Your task to perform on an android device: open app "Viber Messenger" (install if not already installed) Image 0: 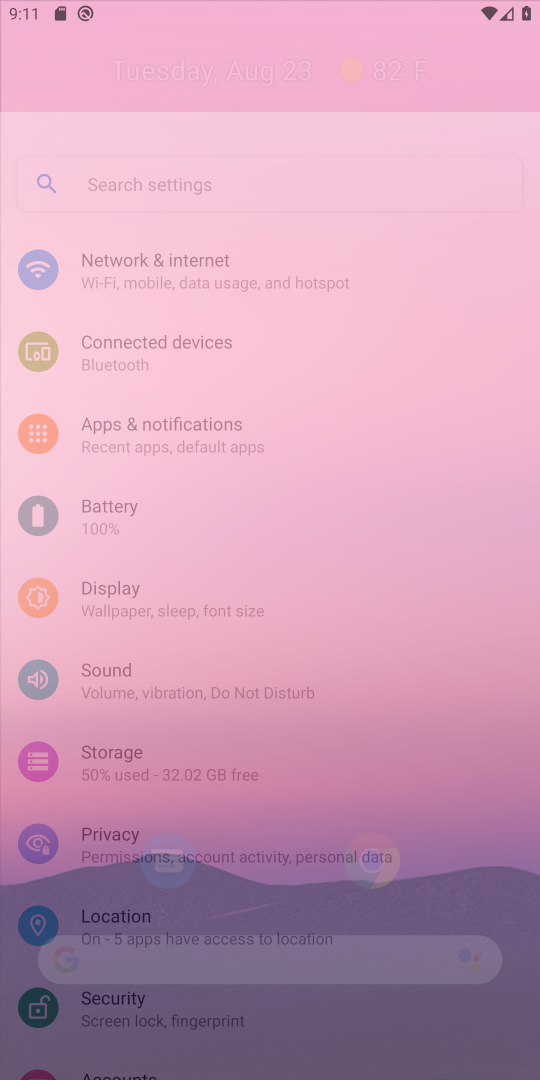
Step 0: click (35, 54)
Your task to perform on an android device: open app "Viber Messenger" (install if not already installed) Image 1: 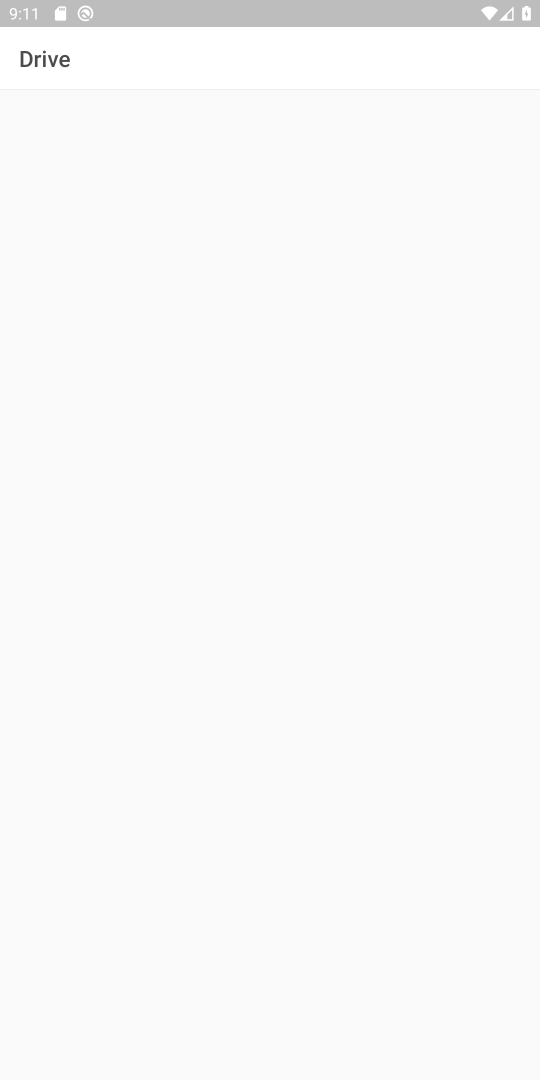
Step 1: press home button
Your task to perform on an android device: open app "Viber Messenger" (install if not already installed) Image 2: 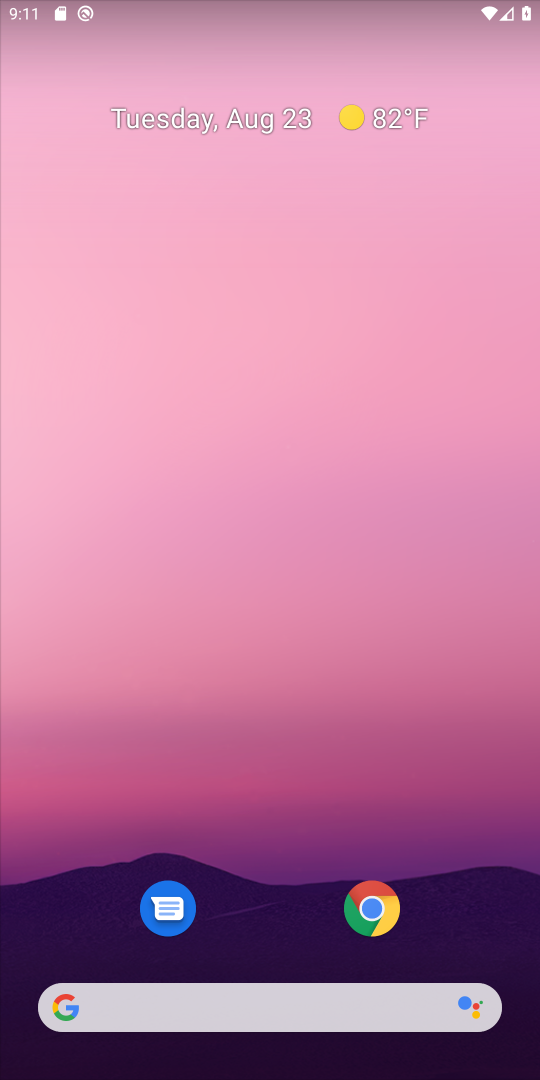
Step 2: drag from (242, 926) to (240, 90)
Your task to perform on an android device: open app "Viber Messenger" (install if not already installed) Image 3: 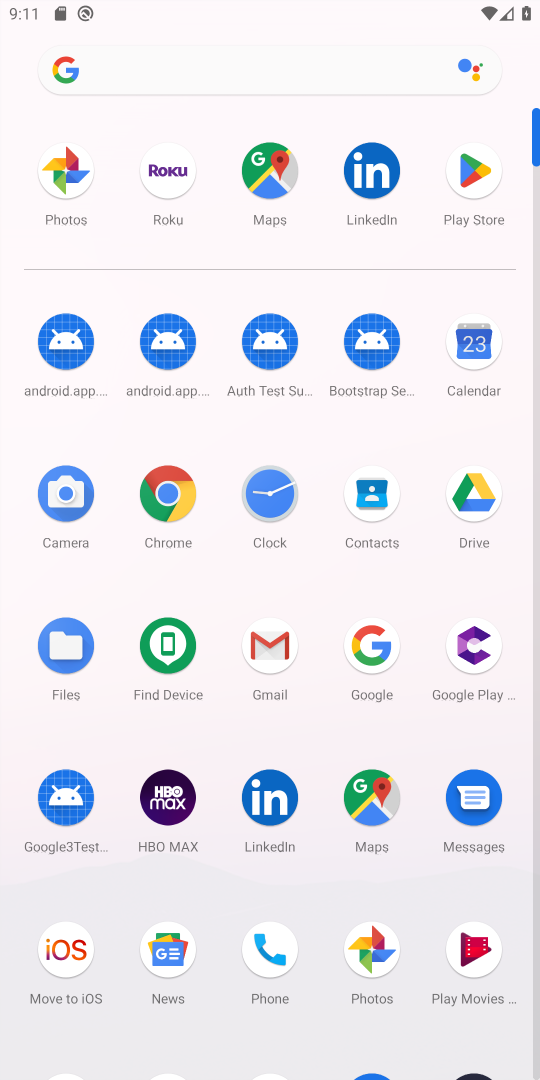
Step 3: click (451, 185)
Your task to perform on an android device: open app "Viber Messenger" (install if not already installed) Image 4: 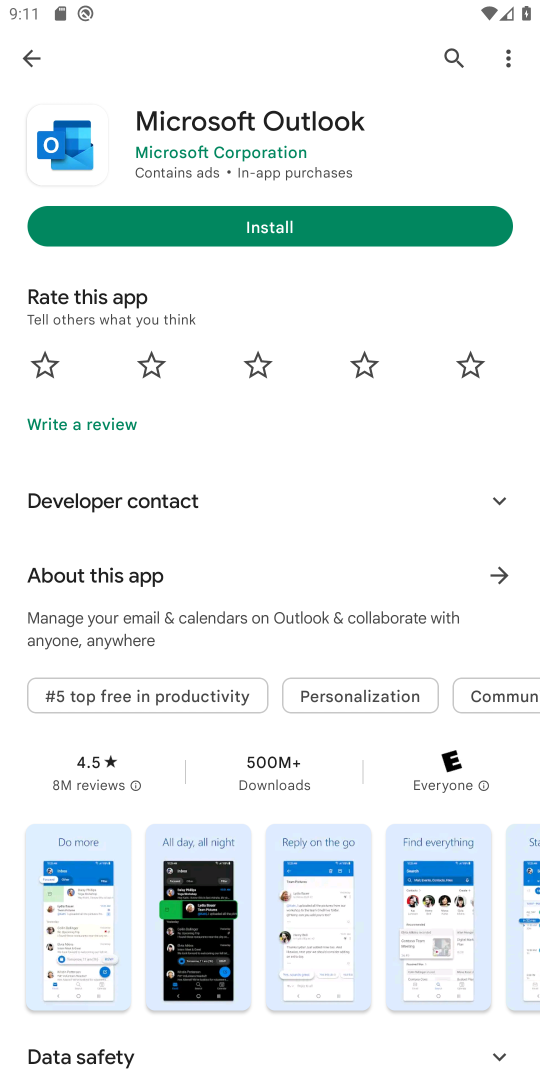
Step 4: click (23, 53)
Your task to perform on an android device: open app "Viber Messenger" (install if not already installed) Image 5: 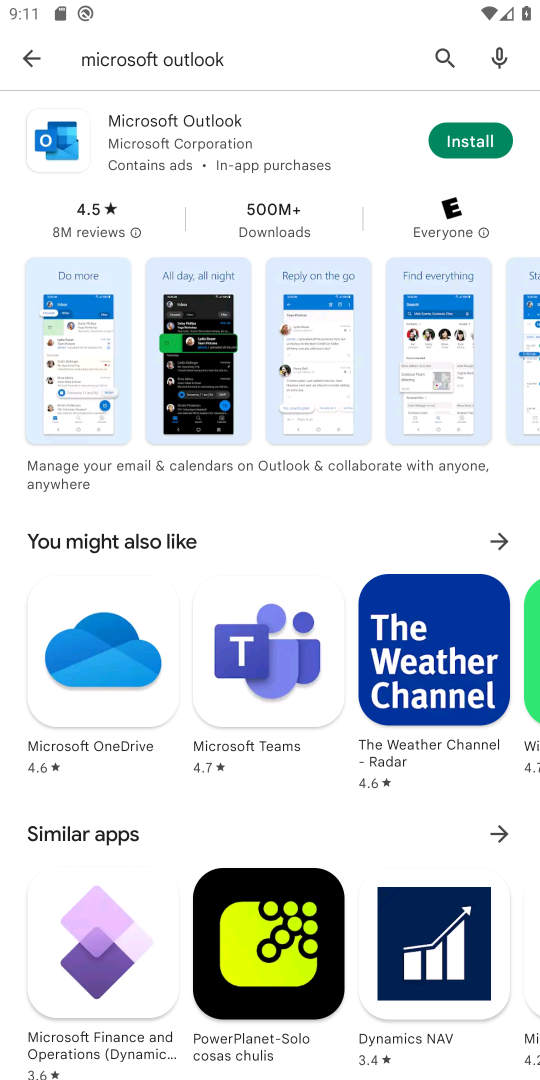
Step 5: click (184, 65)
Your task to perform on an android device: open app "Viber Messenger" (install if not already installed) Image 6: 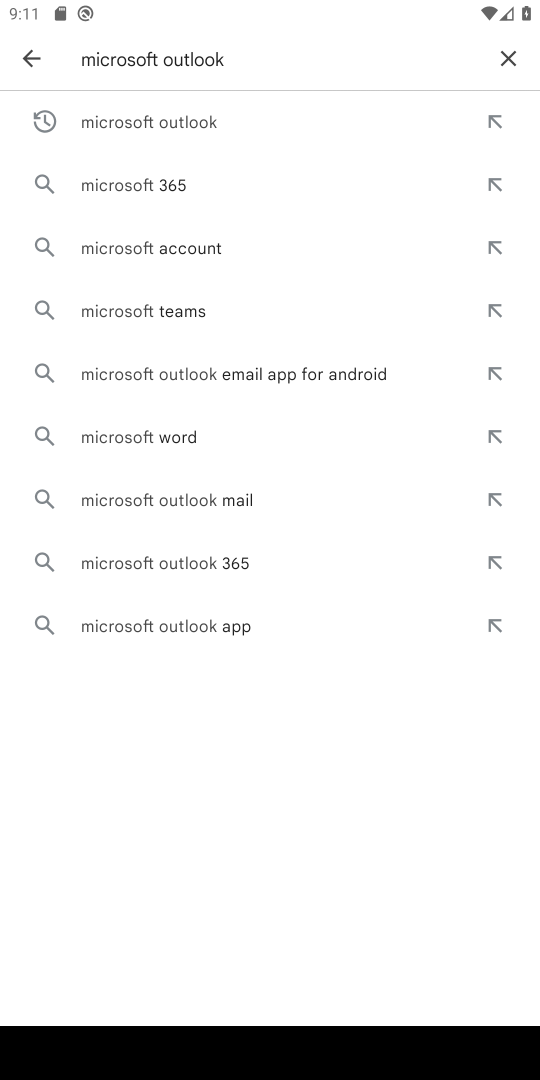
Step 6: click (495, 55)
Your task to perform on an android device: open app "Viber Messenger" (install if not already installed) Image 7: 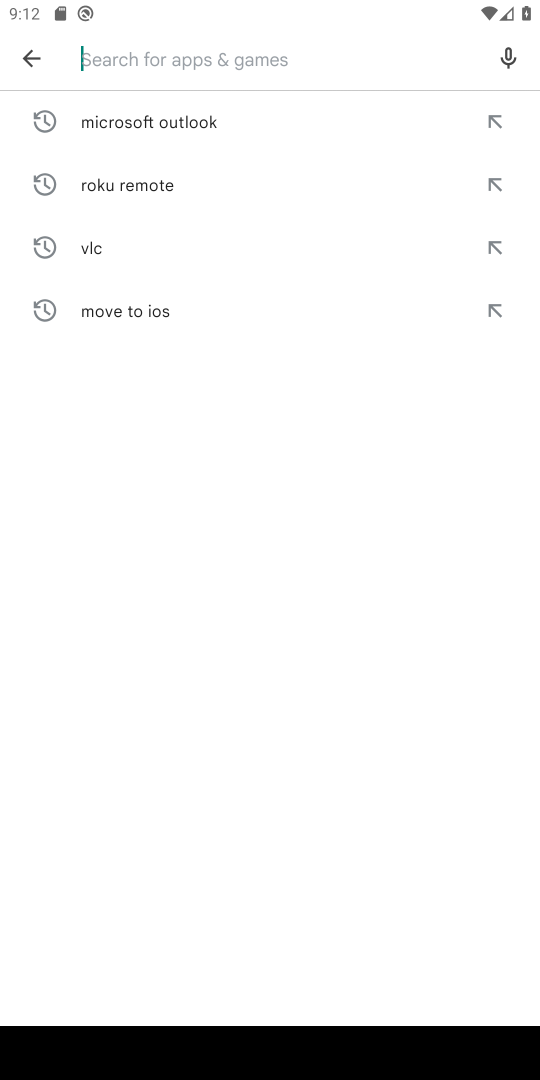
Step 7: type "Viber Messenger"
Your task to perform on an android device: open app "Viber Messenger" (install if not already installed) Image 8: 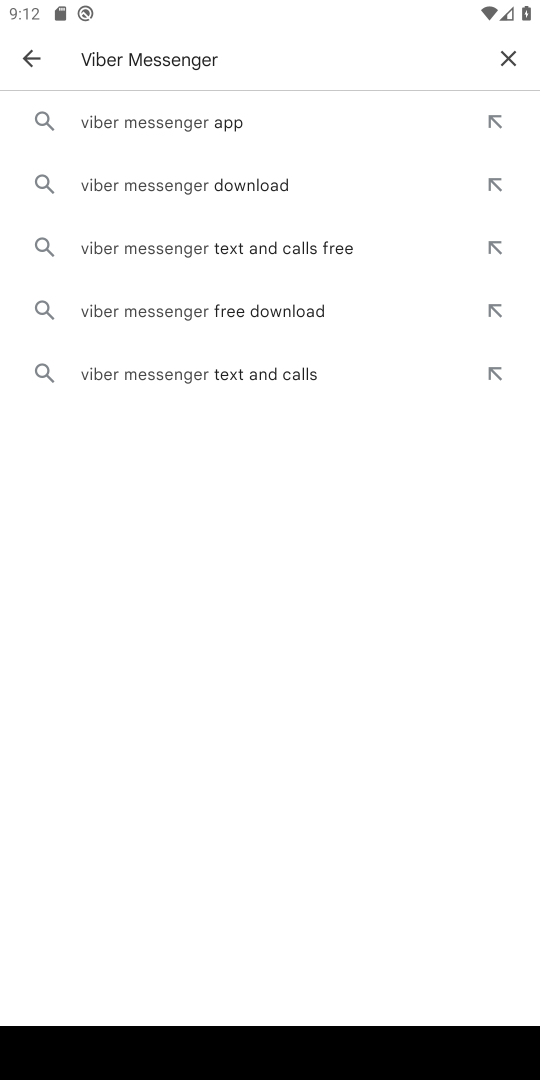
Step 8: click (170, 131)
Your task to perform on an android device: open app "Viber Messenger" (install if not already installed) Image 9: 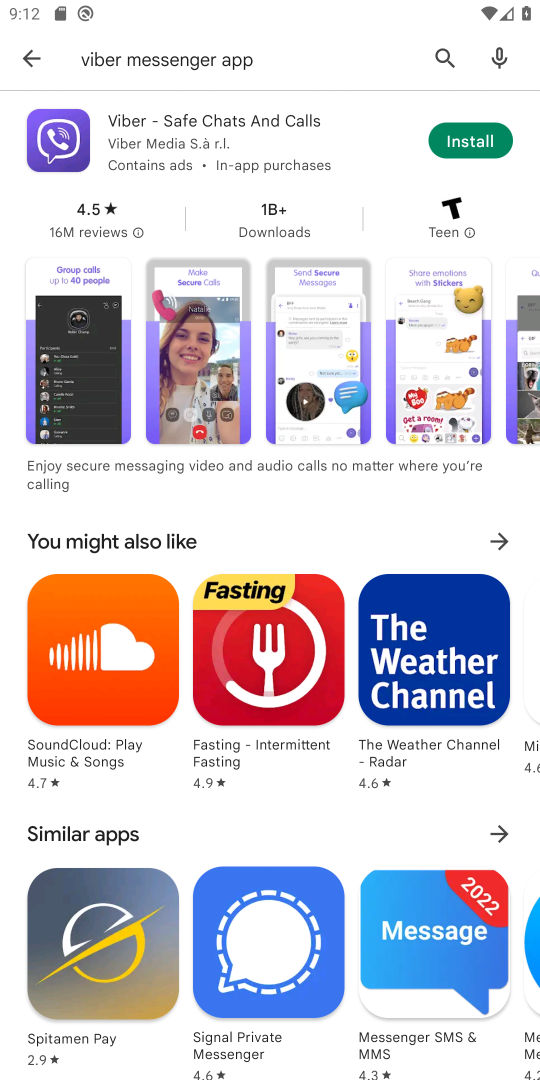
Step 9: click (469, 116)
Your task to perform on an android device: open app "Viber Messenger" (install if not already installed) Image 10: 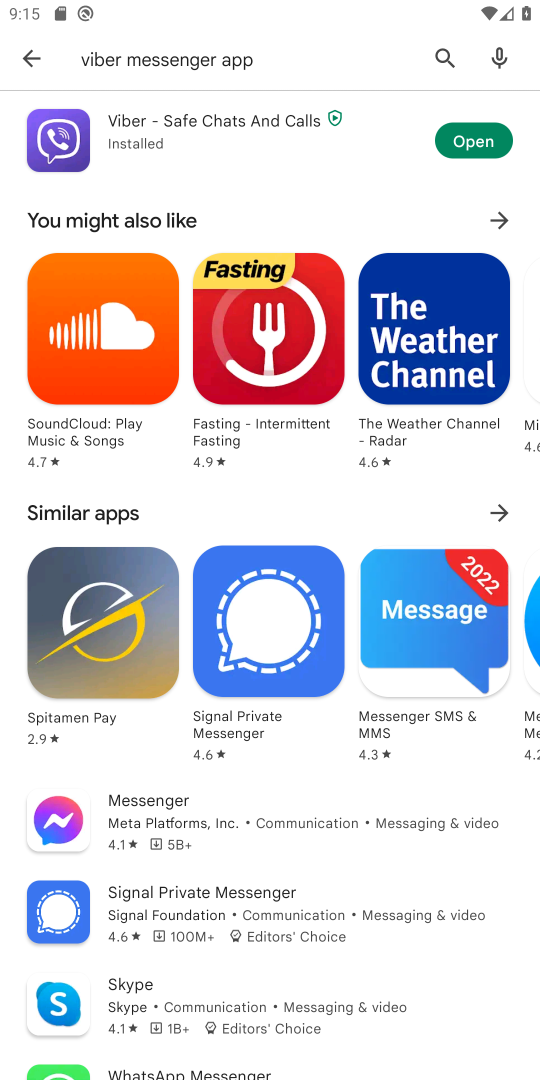
Step 10: click (448, 133)
Your task to perform on an android device: open app "Viber Messenger" (install if not already installed) Image 11: 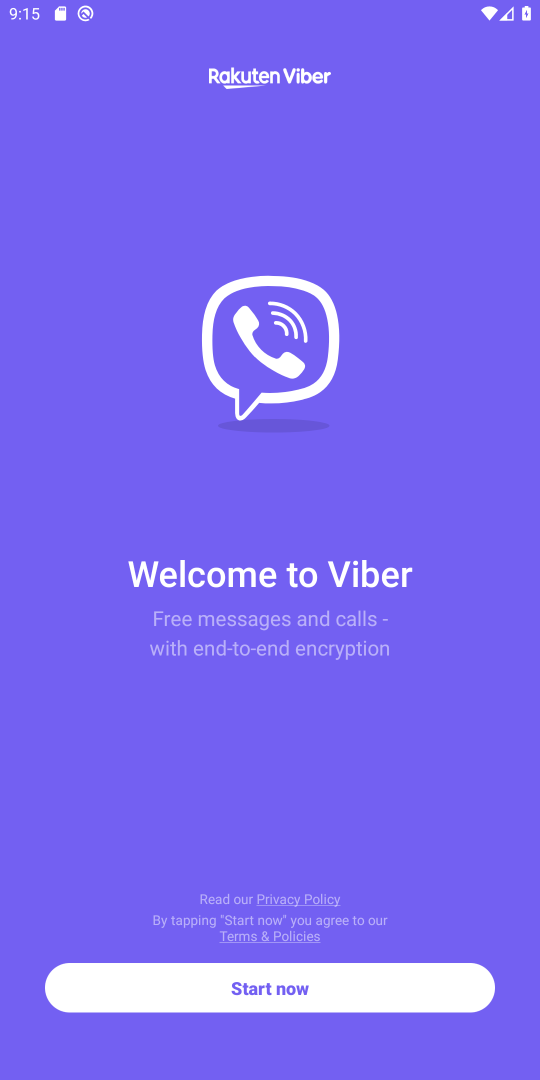
Step 11: click (264, 976)
Your task to perform on an android device: open app "Viber Messenger" (install if not already installed) Image 12: 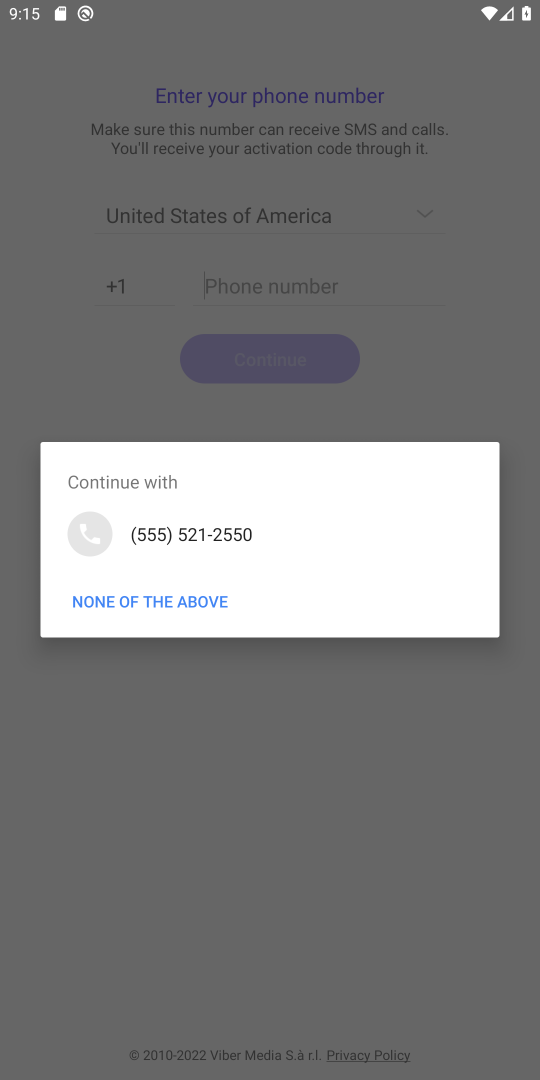
Step 12: click (176, 600)
Your task to perform on an android device: open app "Viber Messenger" (install if not already installed) Image 13: 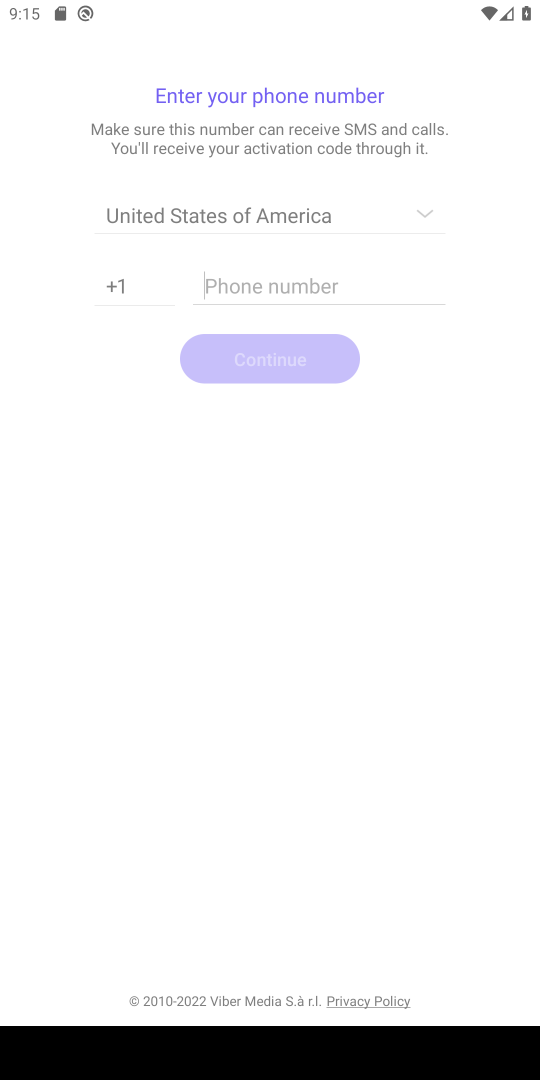
Step 13: task complete